Your task to perform on an android device: Open Chrome and go to the settings page Image 0: 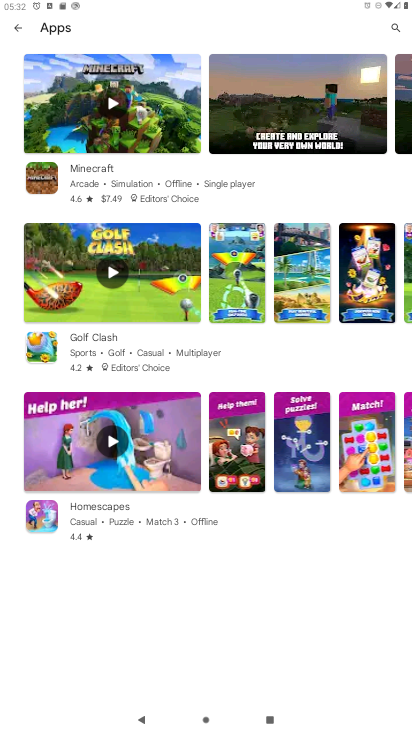
Step 0: press home button
Your task to perform on an android device: Open Chrome and go to the settings page Image 1: 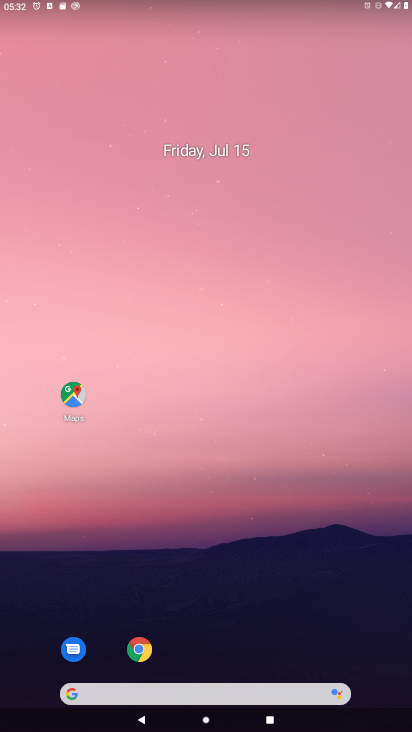
Step 1: click (137, 651)
Your task to perform on an android device: Open Chrome and go to the settings page Image 2: 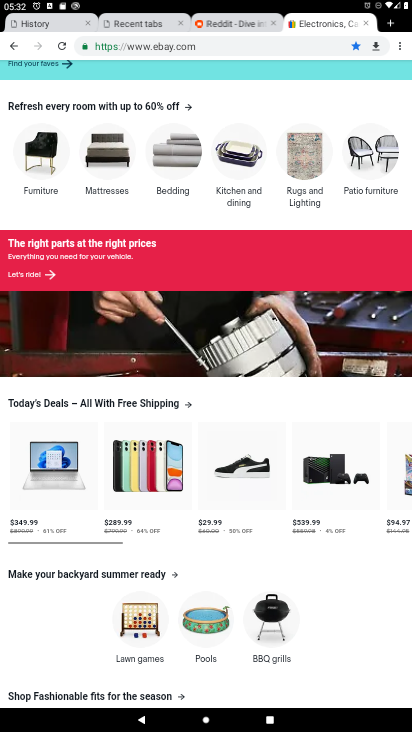
Step 2: click (400, 51)
Your task to perform on an android device: Open Chrome and go to the settings page Image 3: 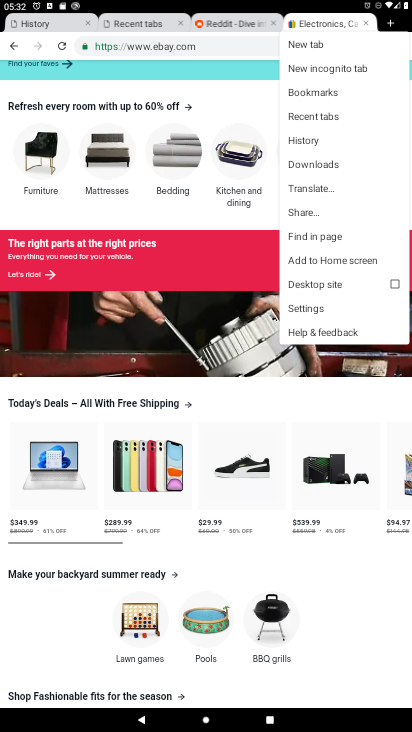
Step 3: click (308, 304)
Your task to perform on an android device: Open Chrome and go to the settings page Image 4: 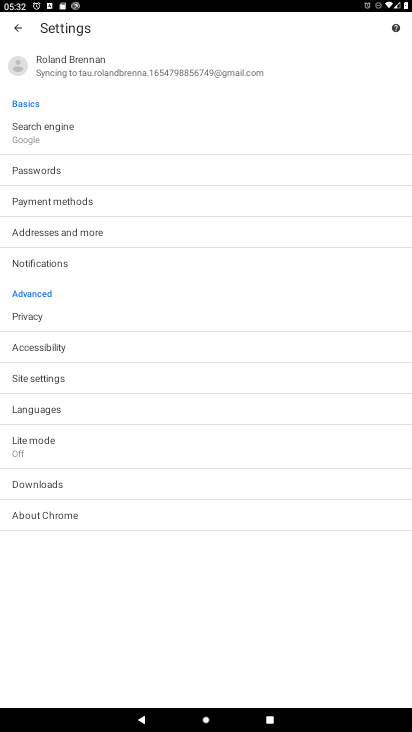
Step 4: task complete